Your task to perform on an android device: Open calendar and show me the fourth week of next month Image 0: 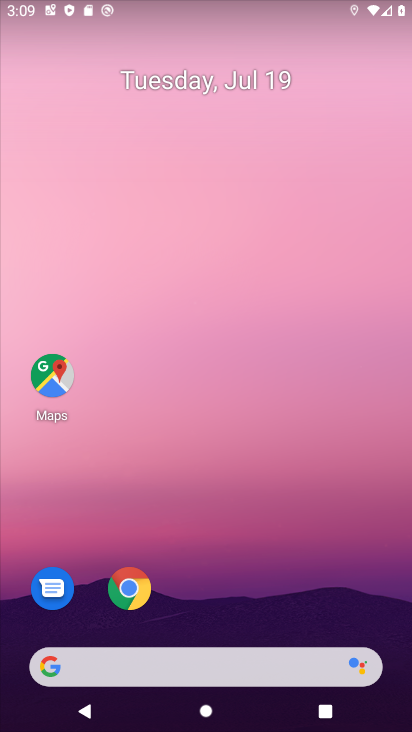
Step 0: drag from (297, 539) to (227, 138)
Your task to perform on an android device: Open calendar and show me the fourth week of next month Image 1: 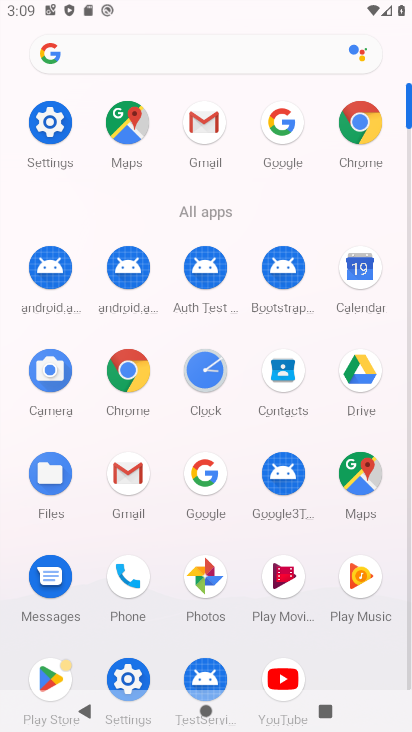
Step 1: click (363, 262)
Your task to perform on an android device: Open calendar and show me the fourth week of next month Image 2: 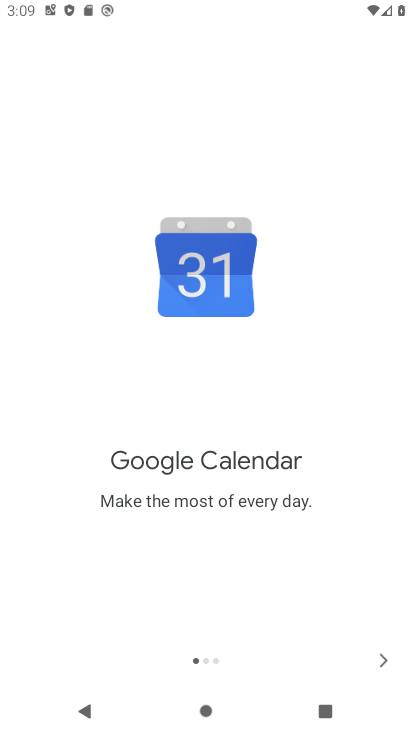
Step 2: click (379, 663)
Your task to perform on an android device: Open calendar and show me the fourth week of next month Image 3: 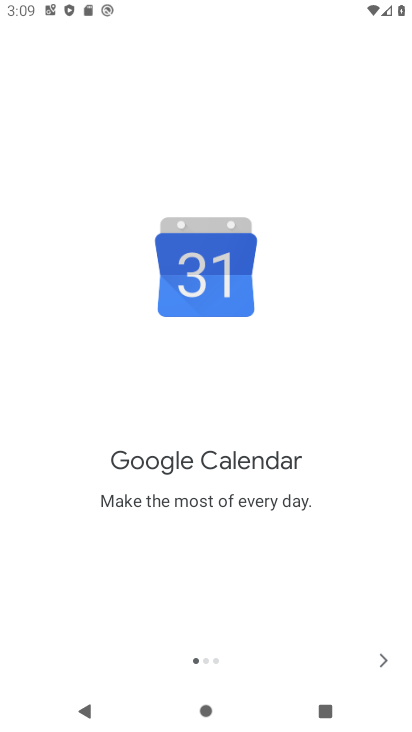
Step 3: click (379, 663)
Your task to perform on an android device: Open calendar and show me the fourth week of next month Image 4: 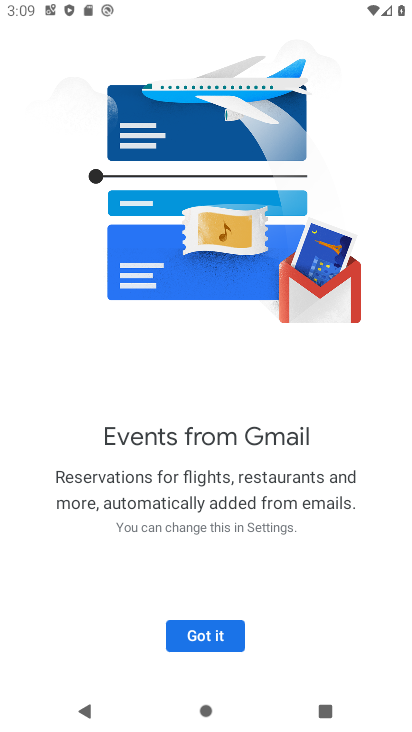
Step 4: click (216, 634)
Your task to perform on an android device: Open calendar and show me the fourth week of next month Image 5: 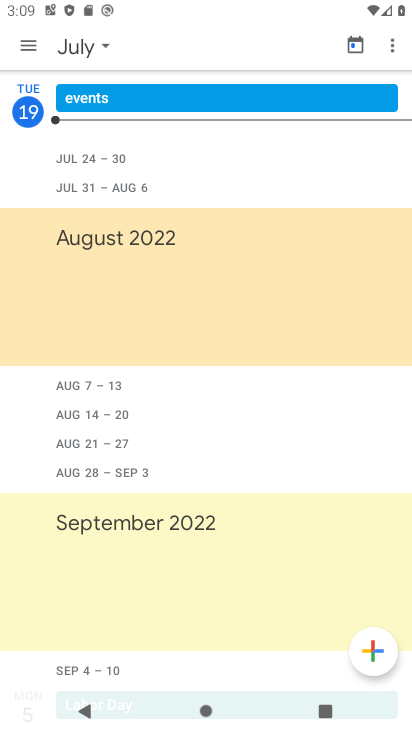
Step 5: click (27, 42)
Your task to perform on an android device: Open calendar and show me the fourth week of next month Image 6: 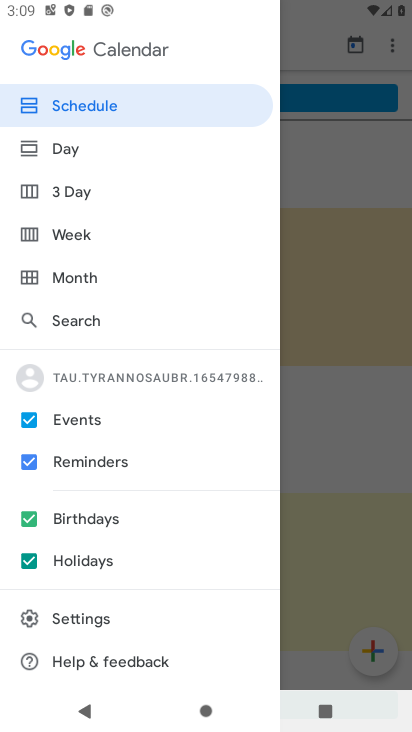
Step 6: click (69, 230)
Your task to perform on an android device: Open calendar and show me the fourth week of next month Image 7: 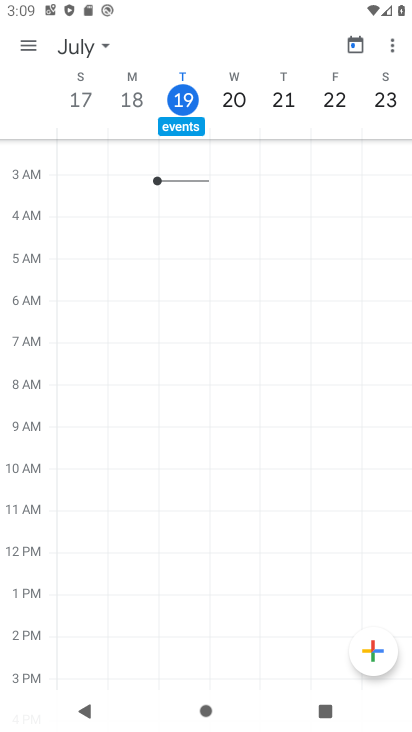
Step 7: click (98, 42)
Your task to perform on an android device: Open calendar and show me the fourth week of next month Image 8: 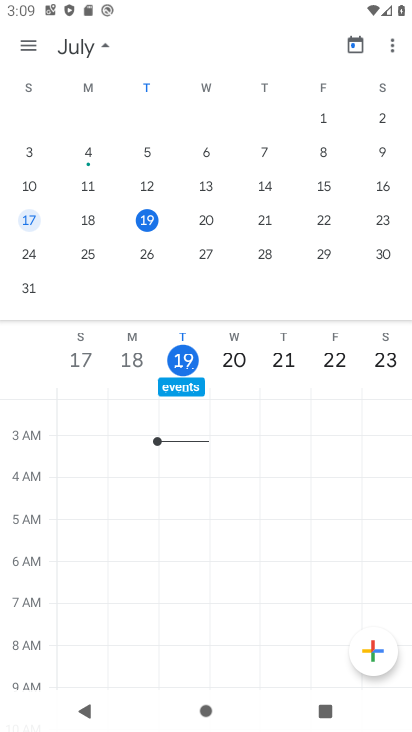
Step 8: drag from (318, 205) to (16, 173)
Your task to perform on an android device: Open calendar and show me the fourth week of next month Image 9: 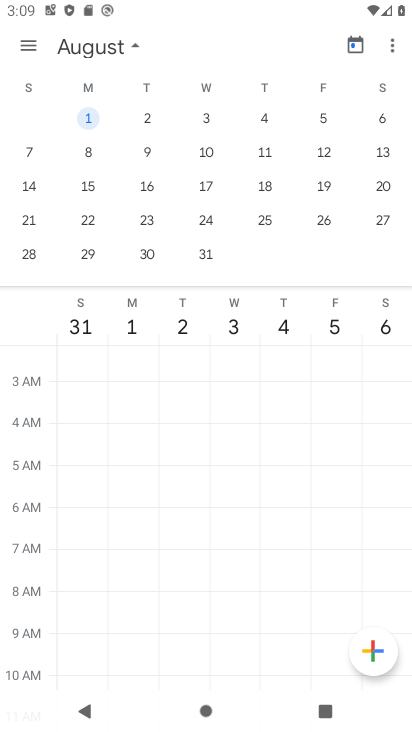
Step 9: click (145, 211)
Your task to perform on an android device: Open calendar and show me the fourth week of next month Image 10: 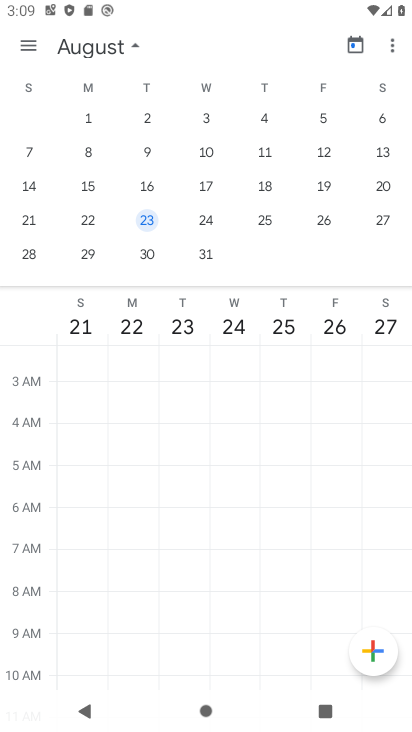
Step 10: task complete